Your task to perform on an android device: check data usage Image 0: 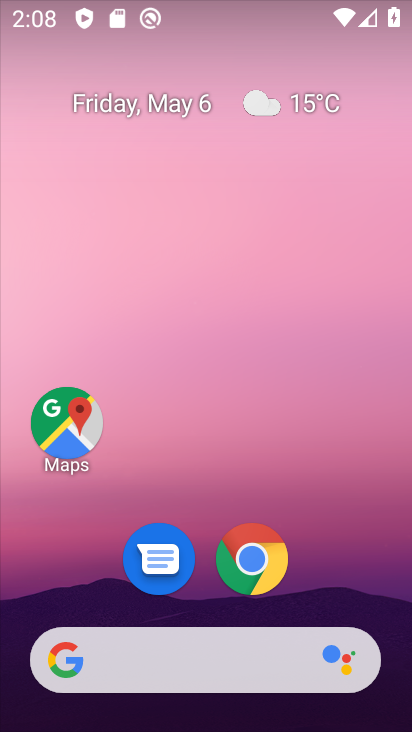
Step 0: drag from (340, 563) to (253, 152)
Your task to perform on an android device: check data usage Image 1: 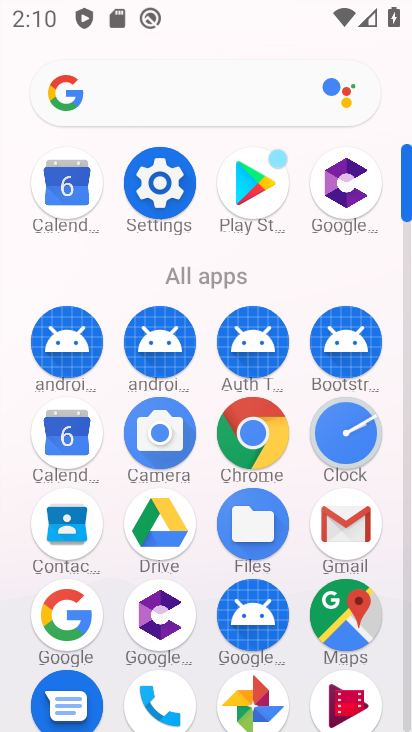
Step 1: click (145, 215)
Your task to perform on an android device: check data usage Image 2: 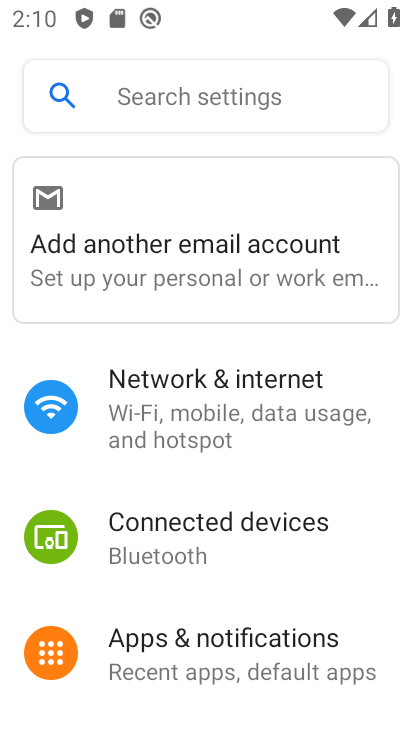
Step 2: click (175, 394)
Your task to perform on an android device: check data usage Image 3: 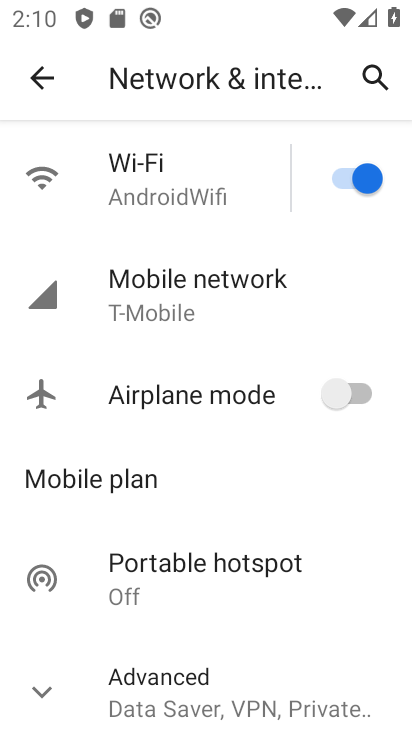
Step 3: click (187, 338)
Your task to perform on an android device: check data usage Image 4: 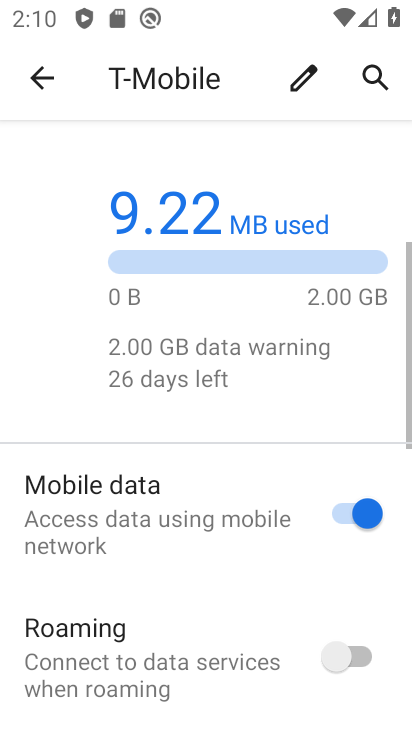
Step 4: task complete